Your task to perform on an android device: turn off translation in the chrome app Image 0: 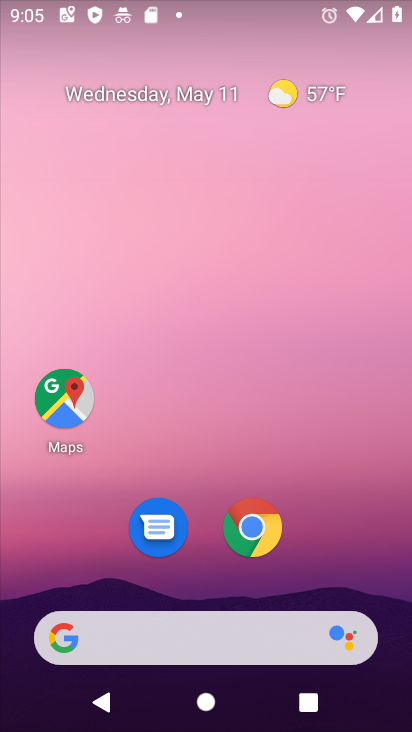
Step 0: click (256, 539)
Your task to perform on an android device: turn off translation in the chrome app Image 1: 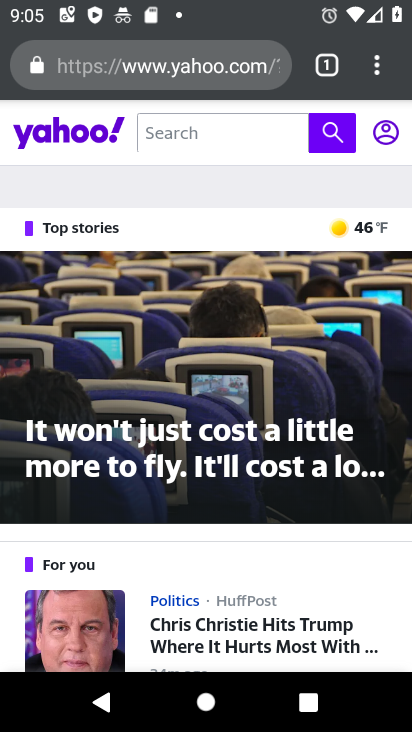
Step 1: drag from (374, 65) to (191, 590)
Your task to perform on an android device: turn off translation in the chrome app Image 2: 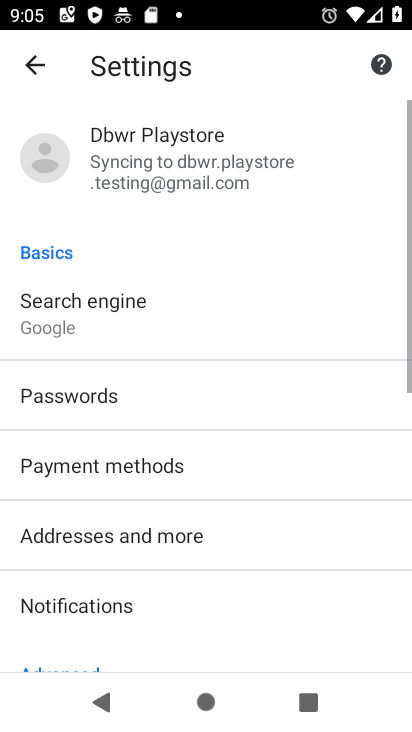
Step 2: drag from (191, 590) to (183, 115)
Your task to perform on an android device: turn off translation in the chrome app Image 3: 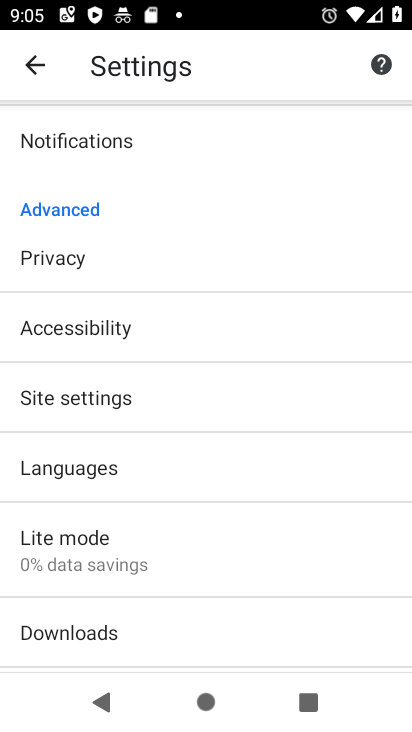
Step 3: click (87, 477)
Your task to perform on an android device: turn off translation in the chrome app Image 4: 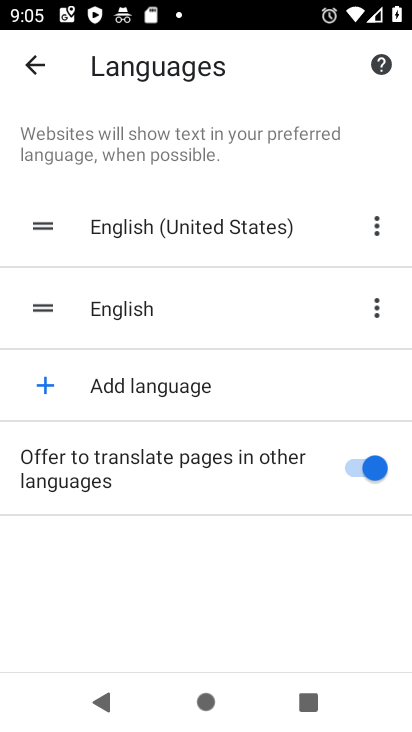
Step 4: click (380, 462)
Your task to perform on an android device: turn off translation in the chrome app Image 5: 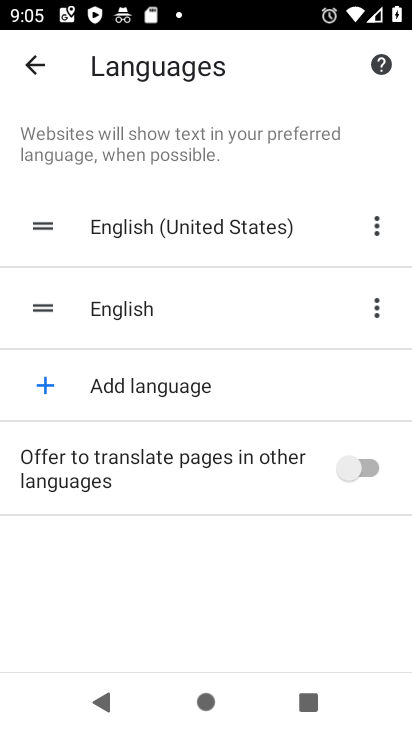
Step 5: task complete